Your task to perform on an android device: check the backup settings in the google photos Image 0: 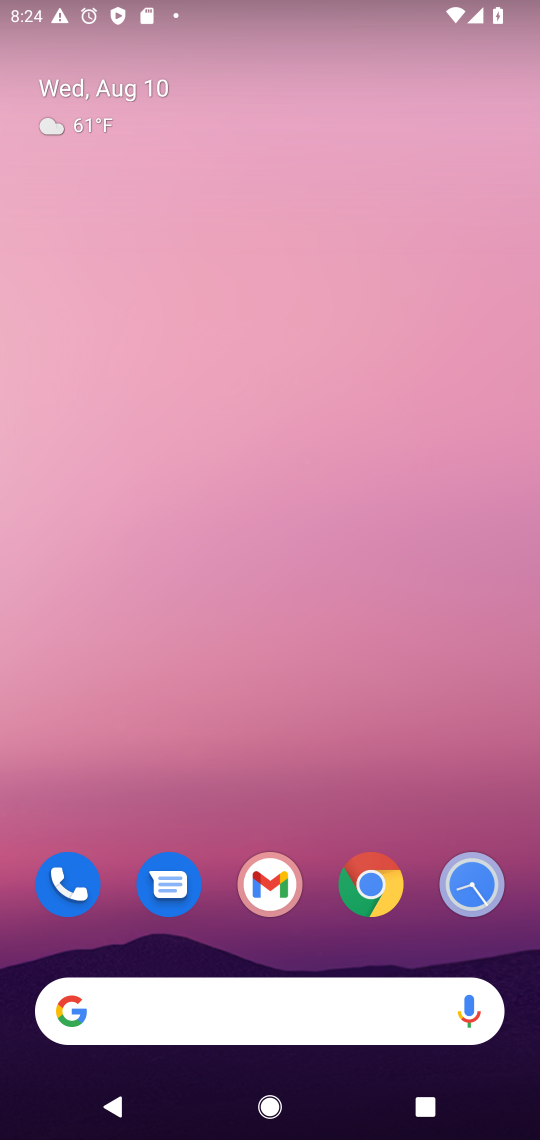
Step 0: drag from (35, 1064) to (347, 241)
Your task to perform on an android device: check the backup settings in the google photos Image 1: 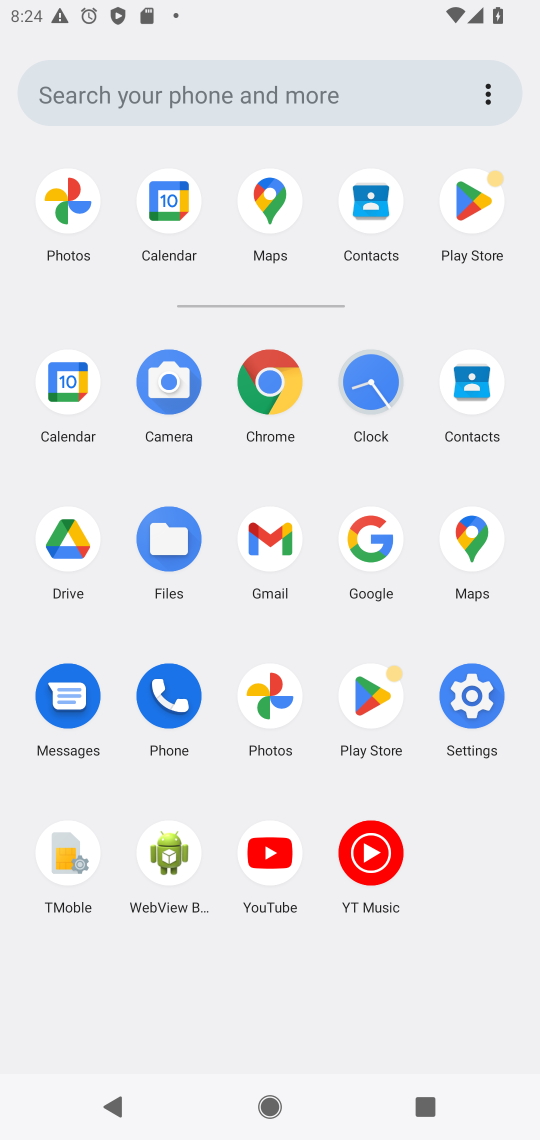
Step 1: click (259, 702)
Your task to perform on an android device: check the backup settings in the google photos Image 2: 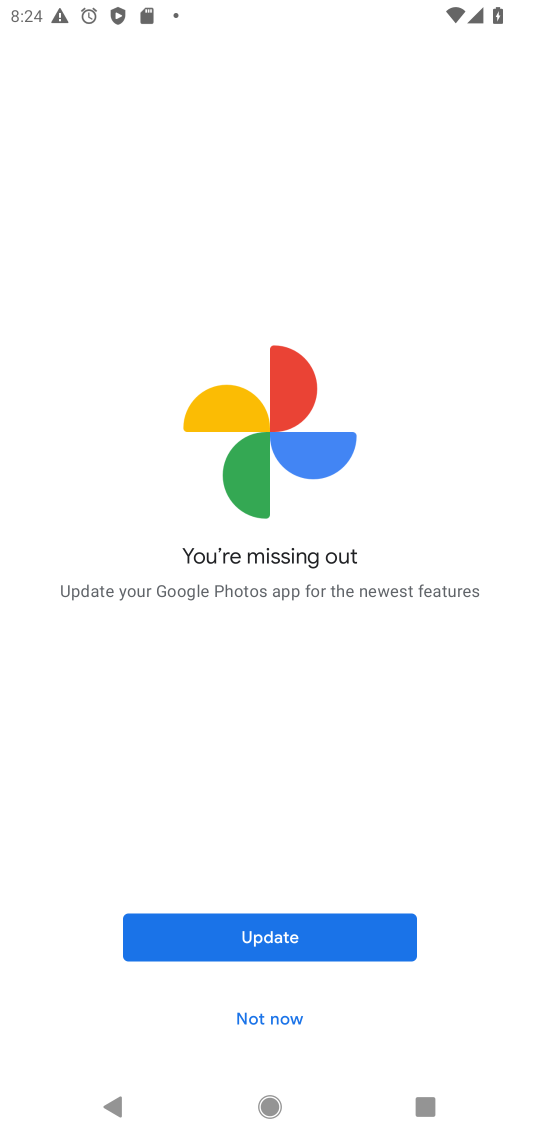
Step 2: click (288, 1006)
Your task to perform on an android device: check the backup settings in the google photos Image 3: 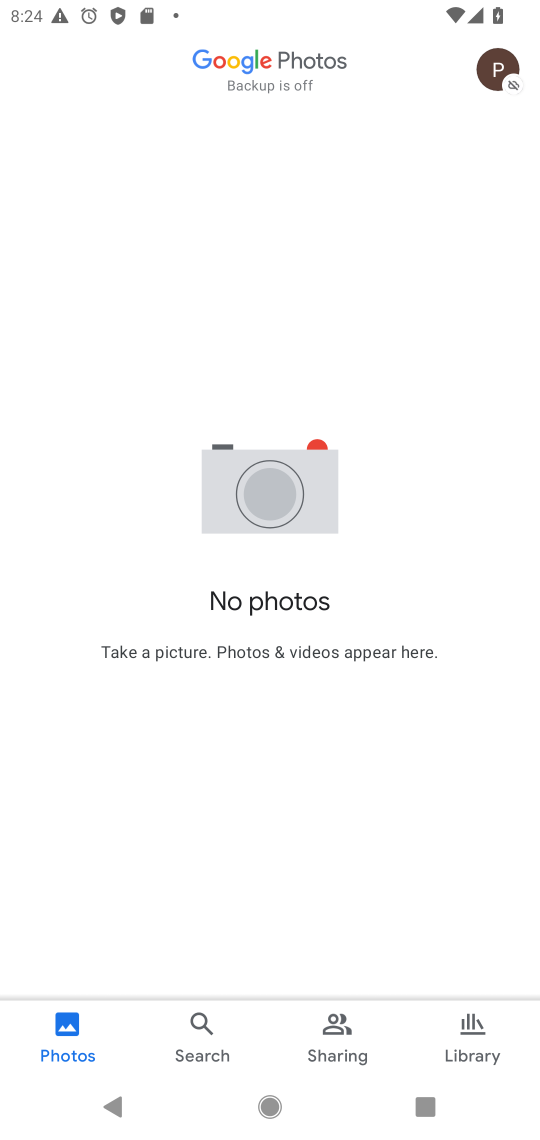
Step 3: click (503, 92)
Your task to perform on an android device: check the backup settings in the google photos Image 4: 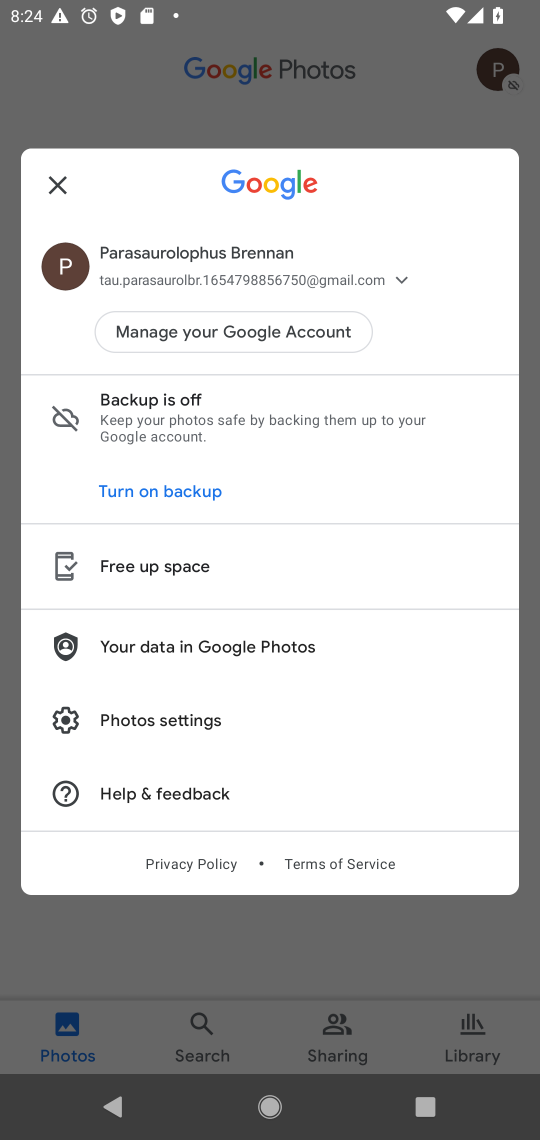
Step 4: click (135, 712)
Your task to perform on an android device: check the backup settings in the google photos Image 5: 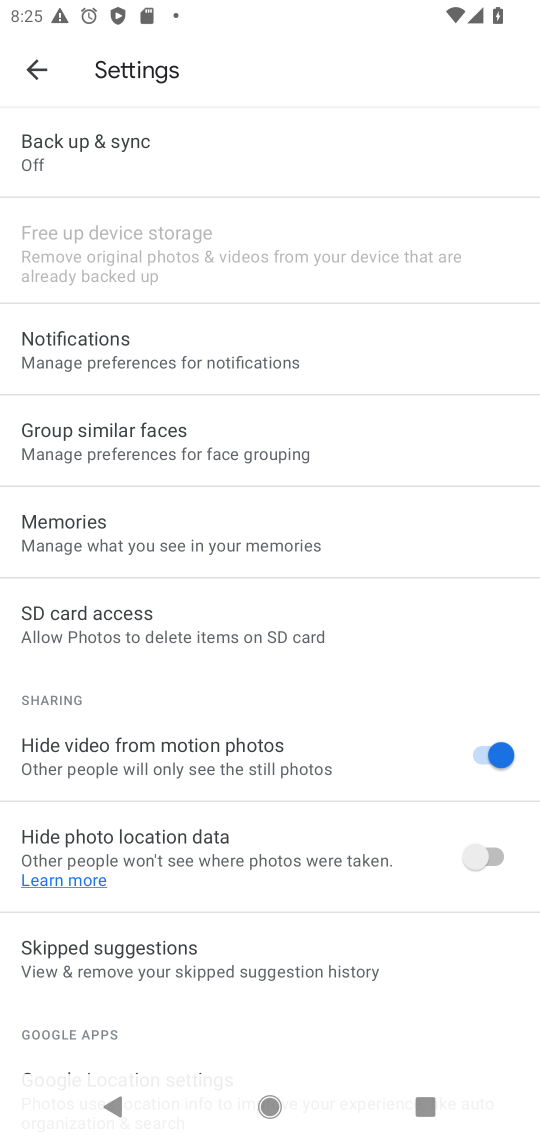
Step 5: click (98, 168)
Your task to perform on an android device: check the backup settings in the google photos Image 6: 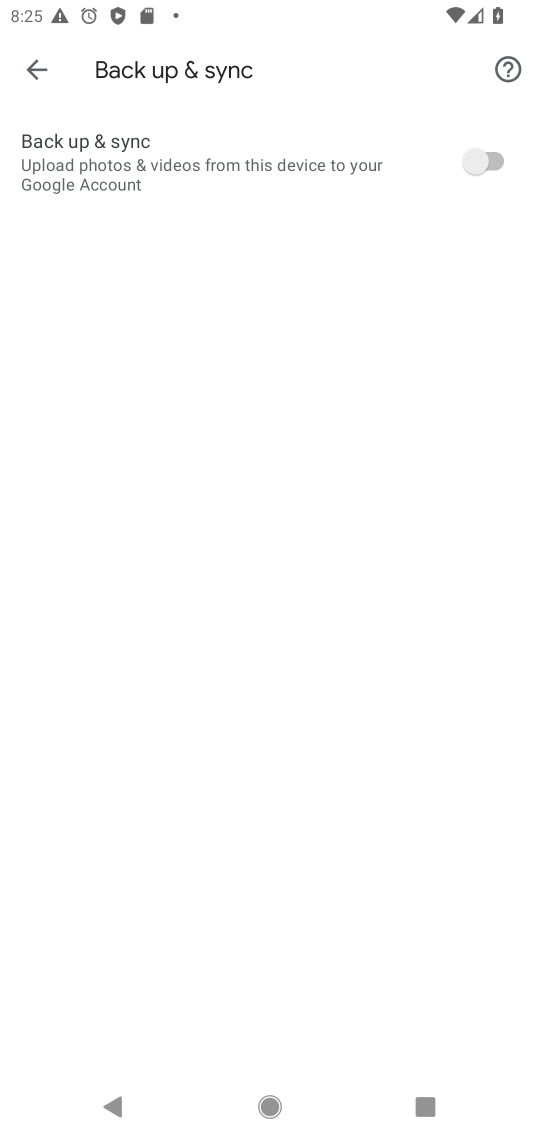
Step 6: click (481, 159)
Your task to perform on an android device: check the backup settings in the google photos Image 7: 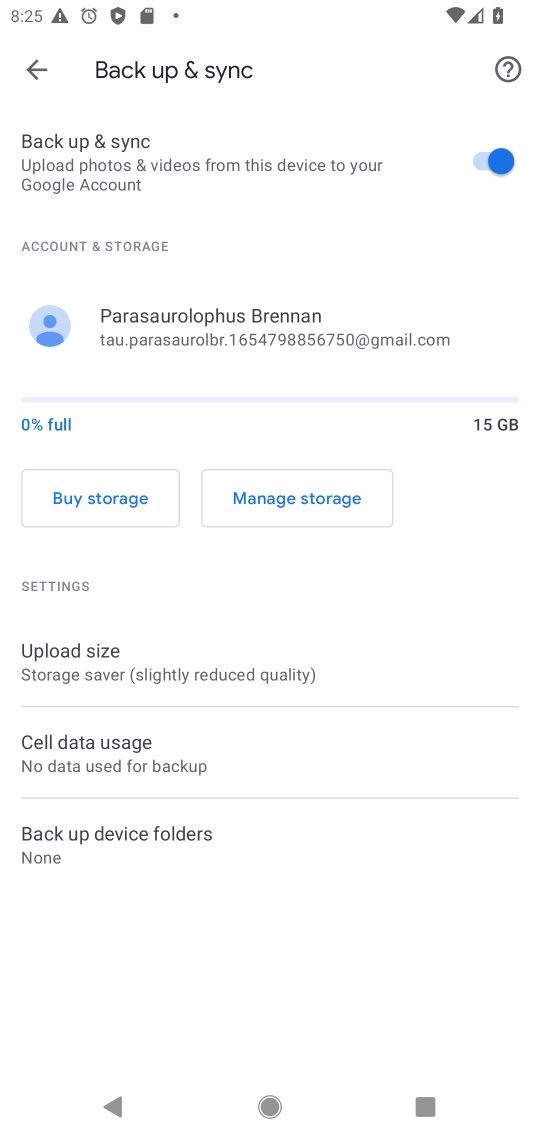
Step 7: task complete